Your task to perform on an android device: check data usage Image 0: 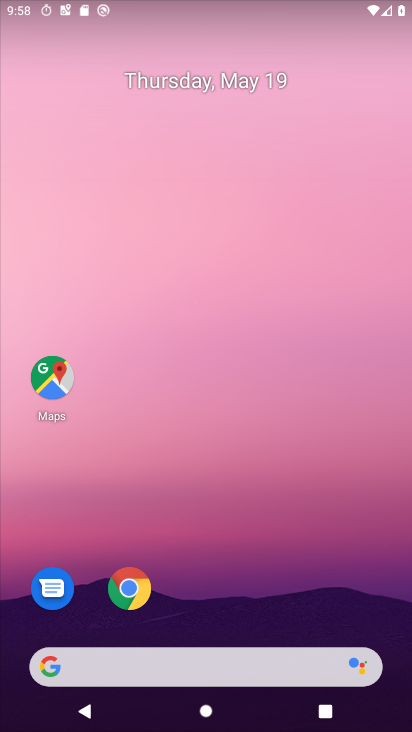
Step 0: drag from (164, 659) to (328, 55)
Your task to perform on an android device: check data usage Image 1: 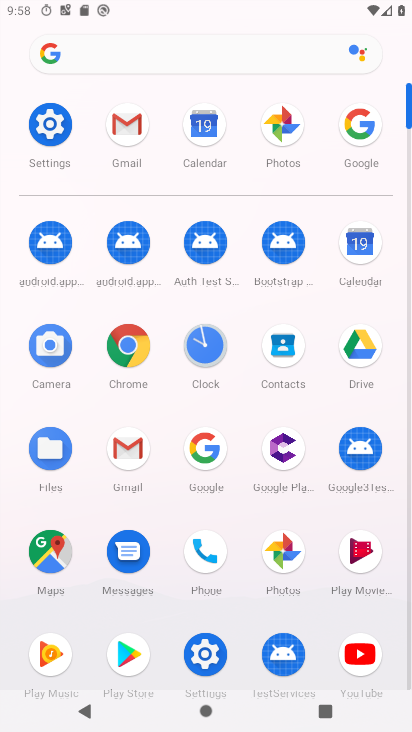
Step 1: click (51, 134)
Your task to perform on an android device: check data usage Image 2: 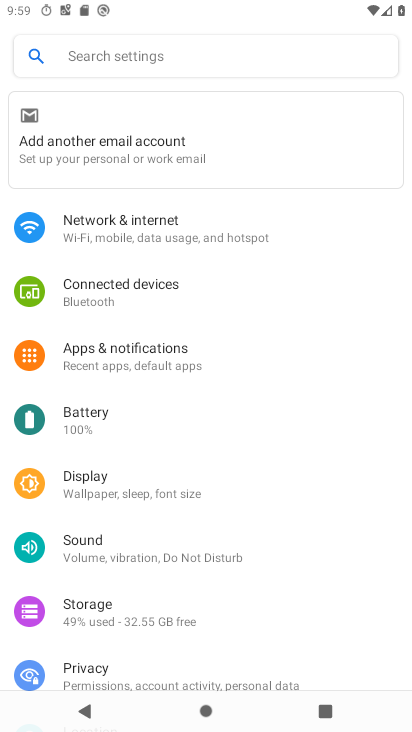
Step 2: click (103, 225)
Your task to perform on an android device: check data usage Image 3: 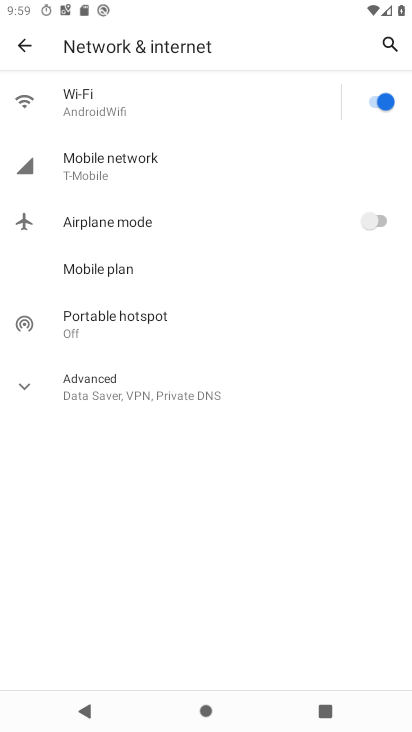
Step 3: click (113, 108)
Your task to perform on an android device: check data usage Image 4: 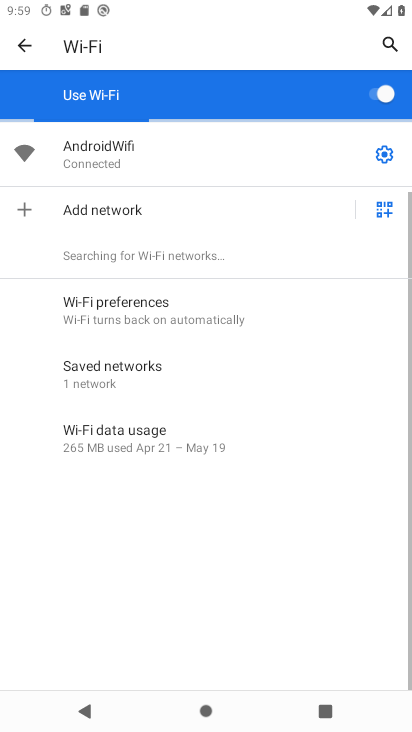
Step 4: click (100, 428)
Your task to perform on an android device: check data usage Image 5: 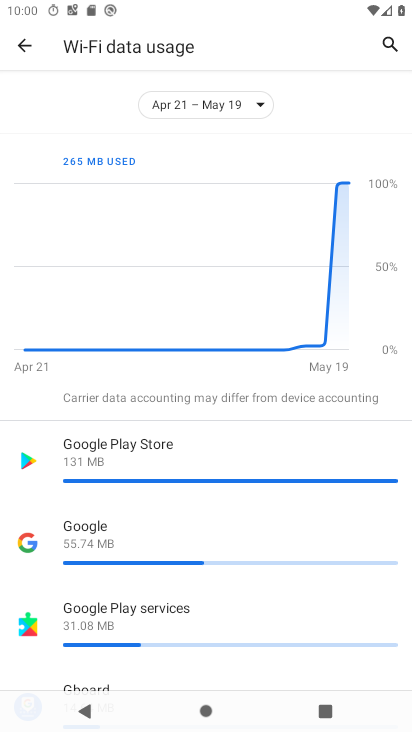
Step 5: task complete